Your task to perform on an android device: Set the phone to "Do not disturb". Image 0: 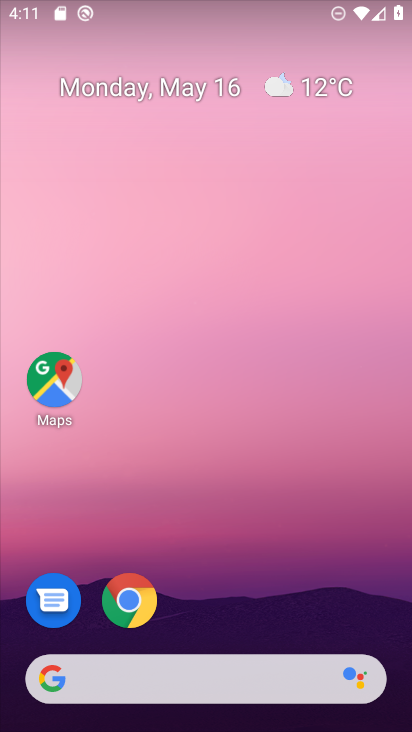
Step 0: drag from (204, 8) to (197, 486)
Your task to perform on an android device: Set the phone to "Do not disturb". Image 1: 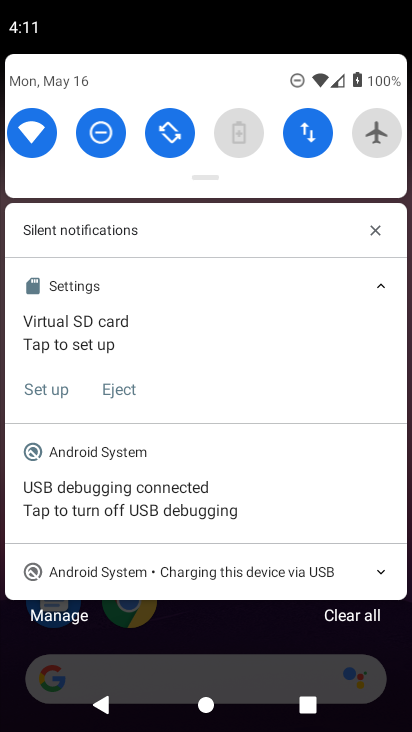
Step 1: task complete